Your task to perform on an android device: What's the weather going to be tomorrow? Image 0: 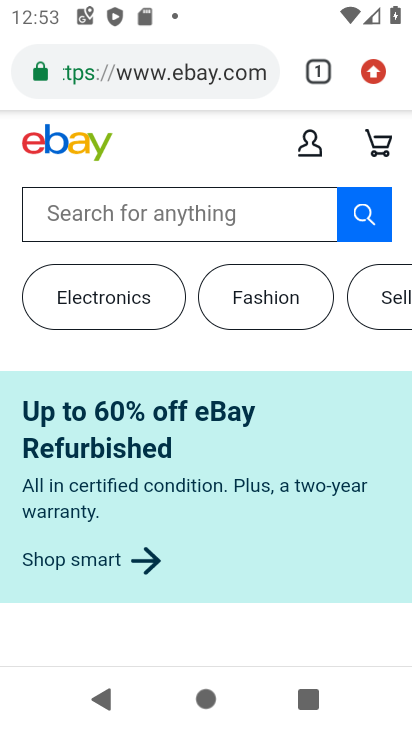
Step 0: press home button
Your task to perform on an android device: What's the weather going to be tomorrow? Image 1: 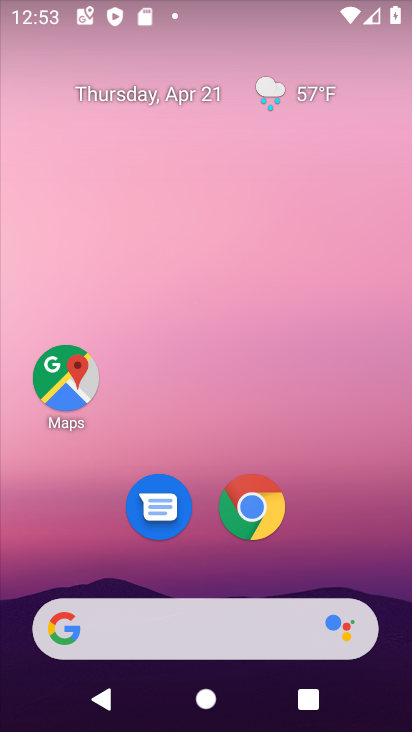
Step 1: drag from (311, 554) to (364, 2)
Your task to perform on an android device: What's the weather going to be tomorrow? Image 2: 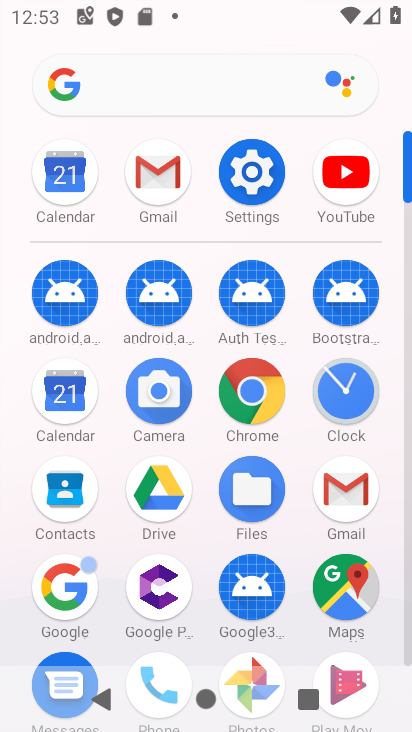
Step 2: click (73, 584)
Your task to perform on an android device: What's the weather going to be tomorrow? Image 3: 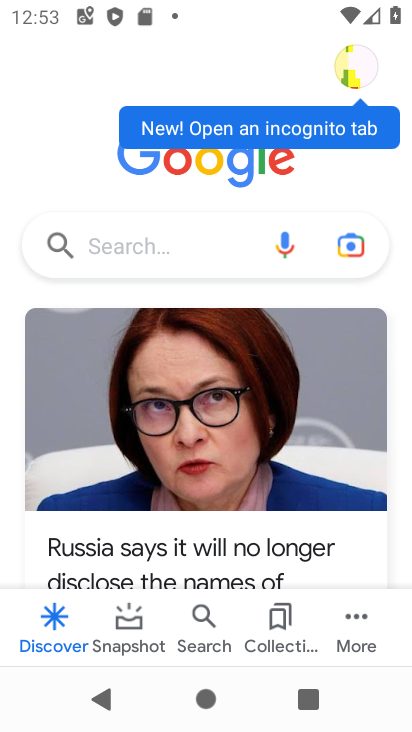
Step 3: click (190, 247)
Your task to perform on an android device: What's the weather going to be tomorrow? Image 4: 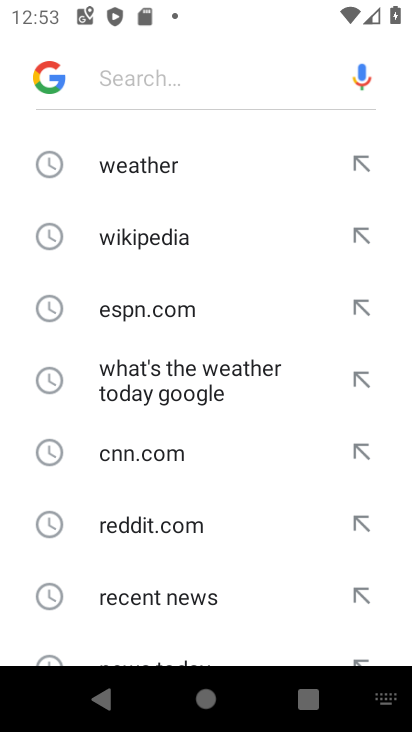
Step 4: drag from (237, 508) to (247, 277)
Your task to perform on an android device: What's the weather going to be tomorrow? Image 5: 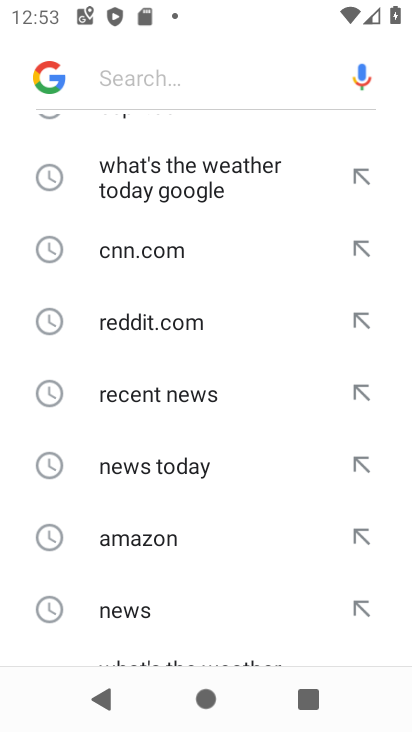
Step 5: drag from (218, 514) to (262, 281)
Your task to perform on an android device: What's the weather going to be tomorrow? Image 6: 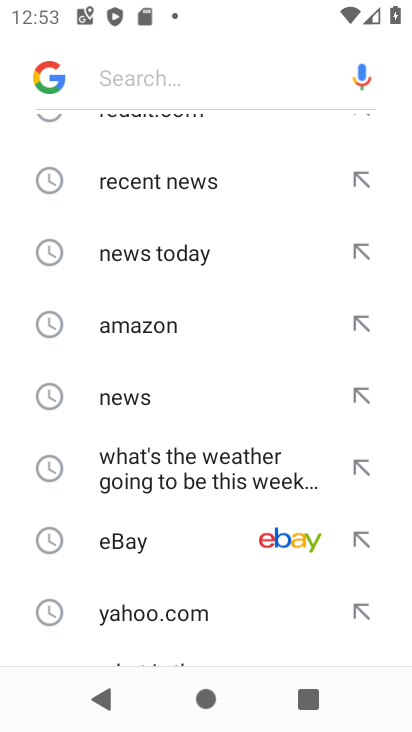
Step 6: drag from (202, 534) to (294, 294)
Your task to perform on an android device: What's the weather going to be tomorrow? Image 7: 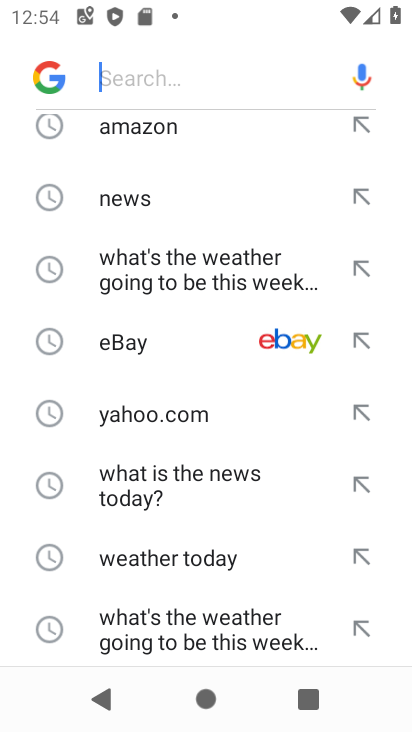
Step 7: drag from (215, 521) to (266, 382)
Your task to perform on an android device: What's the weather going to be tomorrow? Image 8: 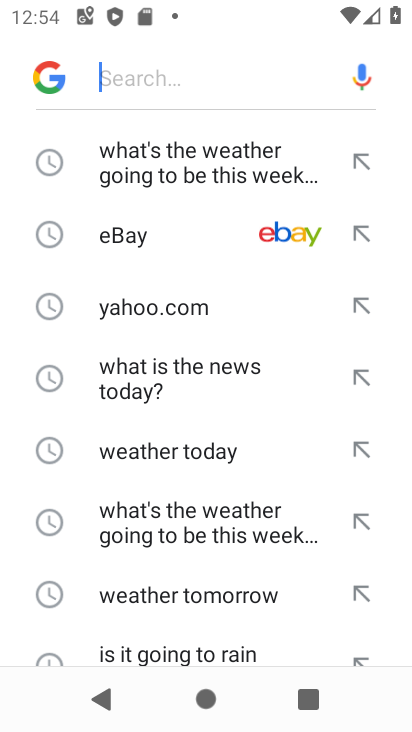
Step 8: click (260, 590)
Your task to perform on an android device: What's the weather going to be tomorrow? Image 9: 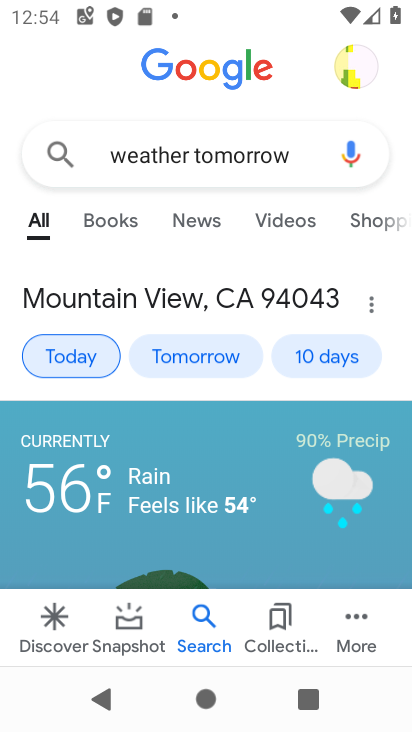
Step 9: click (209, 350)
Your task to perform on an android device: What's the weather going to be tomorrow? Image 10: 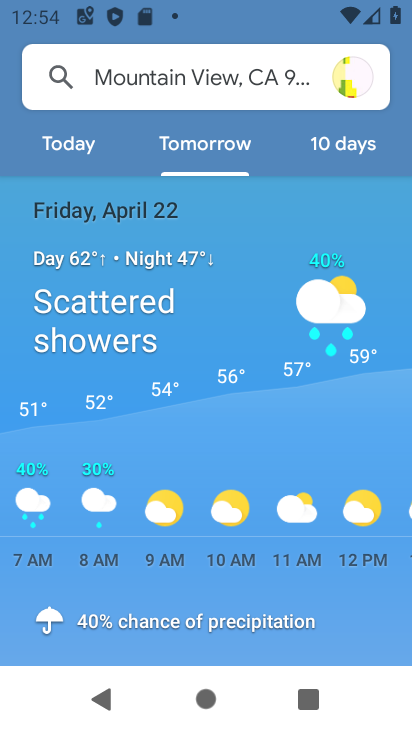
Step 10: task complete